Your task to perform on an android device: Open Google Maps and go to "Timeline" Image 0: 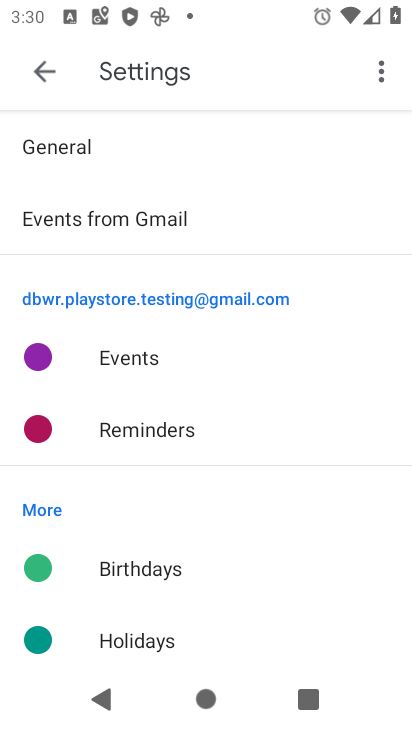
Step 0: press home button
Your task to perform on an android device: Open Google Maps and go to "Timeline" Image 1: 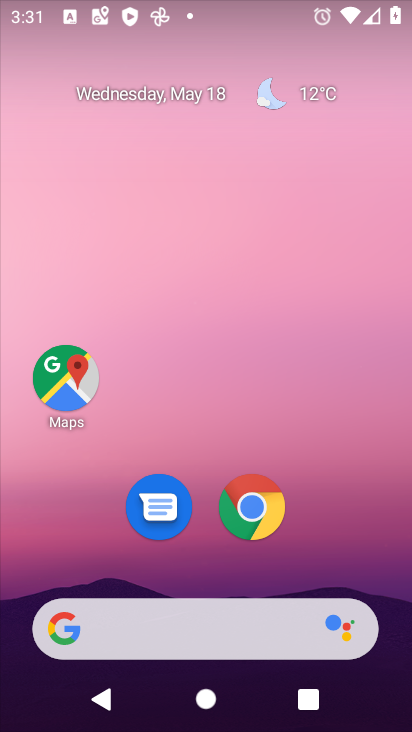
Step 1: click (63, 372)
Your task to perform on an android device: Open Google Maps and go to "Timeline" Image 2: 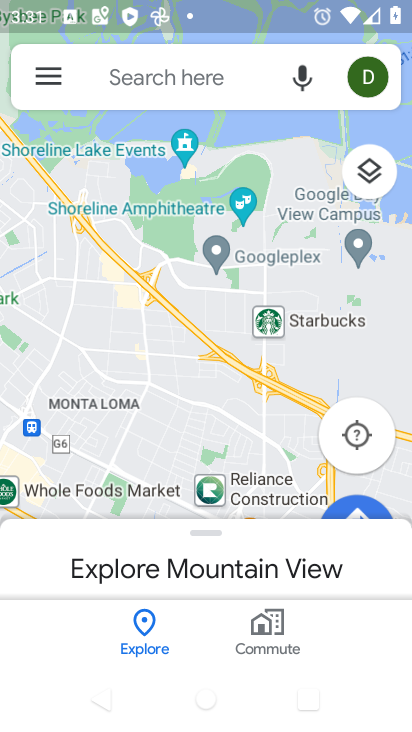
Step 2: click (48, 73)
Your task to perform on an android device: Open Google Maps and go to "Timeline" Image 3: 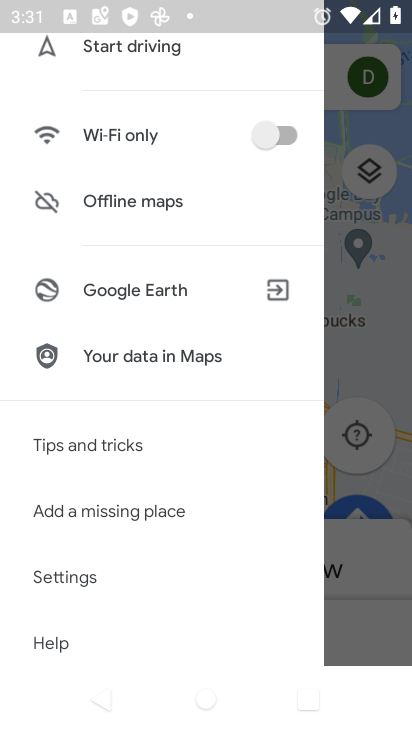
Step 3: drag from (215, 170) to (190, 471)
Your task to perform on an android device: Open Google Maps and go to "Timeline" Image 4: 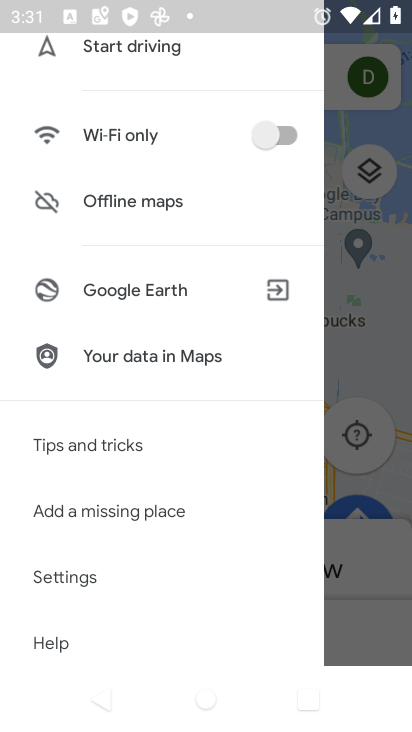
Step 4: drag from (228, 189) to (214, 462)
Your task to perform on an android device: Open Google Maps and go to "Timeline" Image 5: 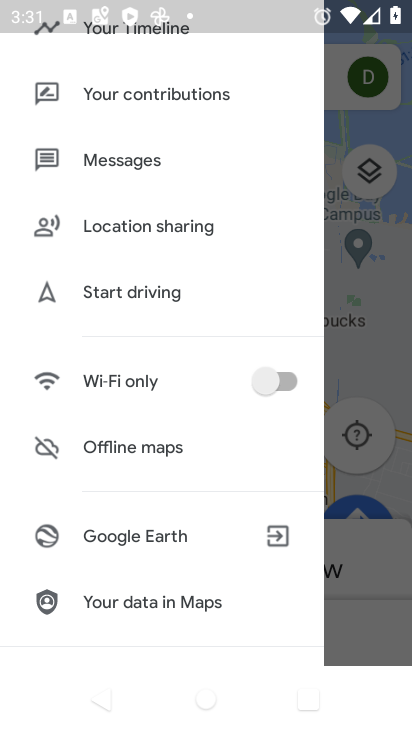
Step 5: drag from (242, 224) to (215, 548)
Your task to perform on an android device: Open Google Maps and go to "Timeline" Image 6: 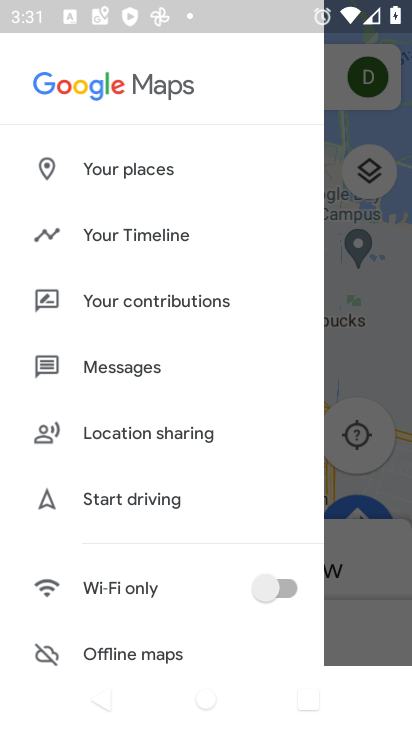
Step 6: click (120, 232)
Your task to perform on an android device: Open Google Maps and go to "Timeline" Image 7: 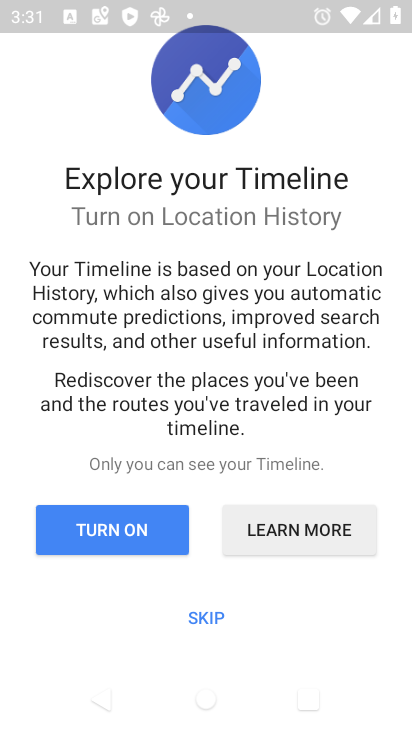
Step 7: click (199, 610)
Your task to perform on an android device: Open Google Maps and go to "Timeline" Image 8: 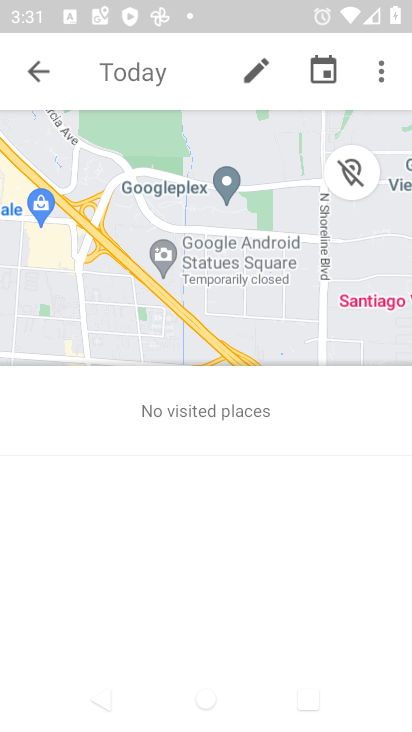
Step 8: task complete